Your task to perform on an android device: Go to eBay Image 0: 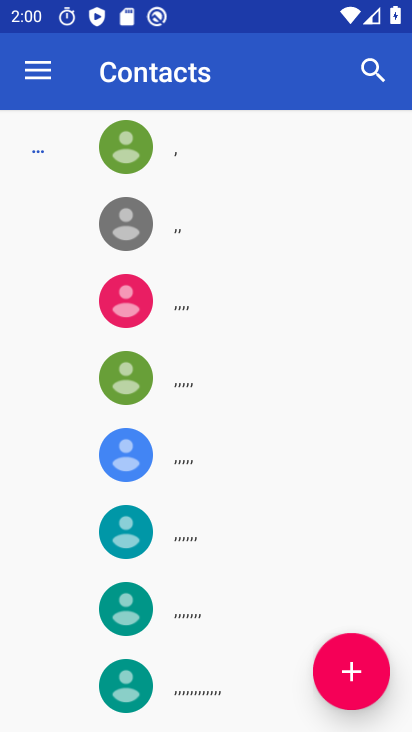
Step 0: press home button
Your task to perform on an android device: Go to eBay Image 1: 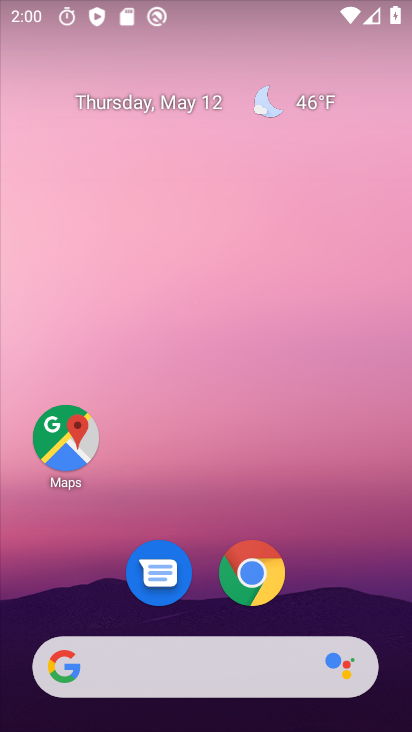
Step 1: click (260, 666)
Your task to perform on an android device: Go to eBay Image 2: 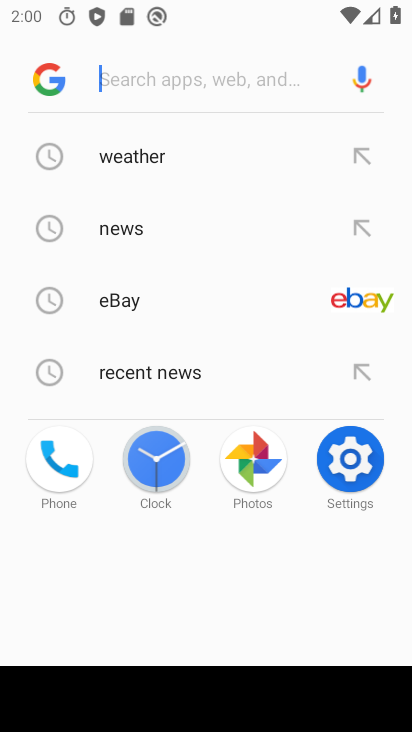
Step 2: click (167, 294)
Your task to perform on an android device: Go to eBay Image 3: 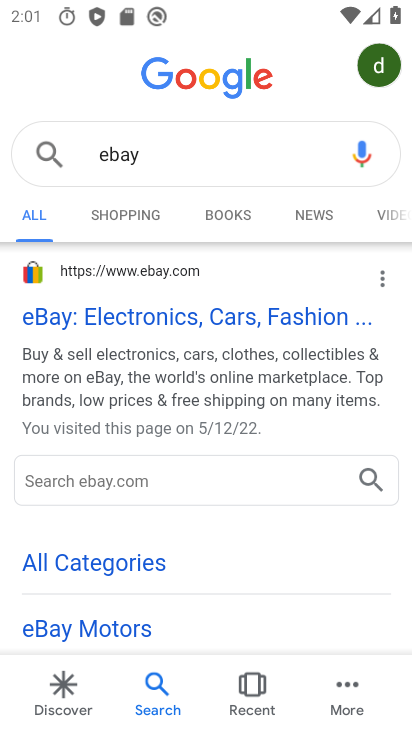
Step 3: task complete